Your task to perform on an android device: see sites visited before in the chrome app Image 0: 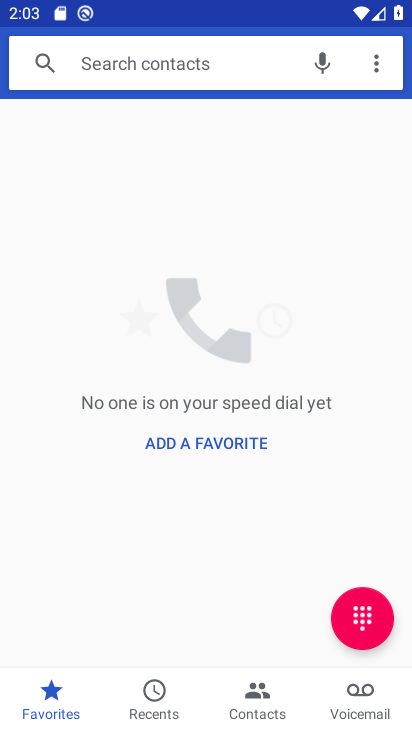
Step 0: press home button
Your task to perform on an android device: see sites visited before in the chrome app Image 1: 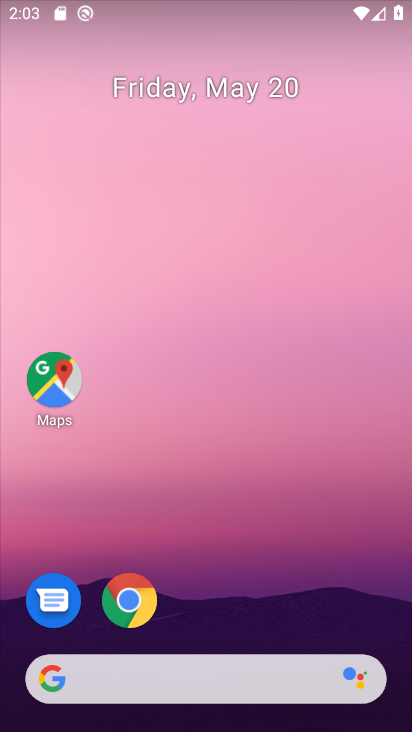
Step 1: drag from (297, 620) to (186, 83)
Your task to perform on an android device: see sites visited before in the chrome app Image 2: 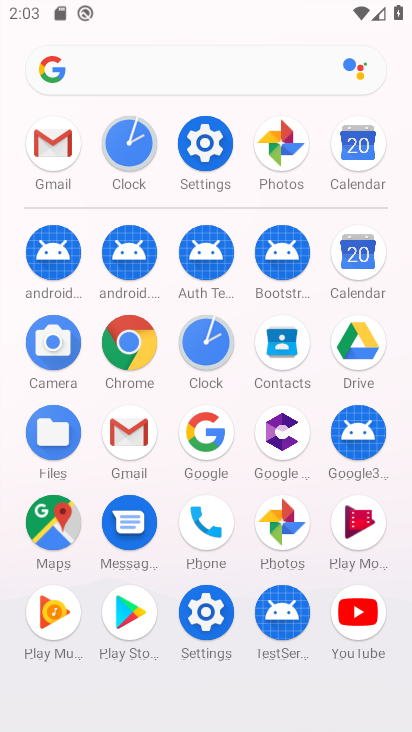
Step 2: click (148, 357)
Your task to perform on an android device: see sites visited before in the chrome app Image 3: 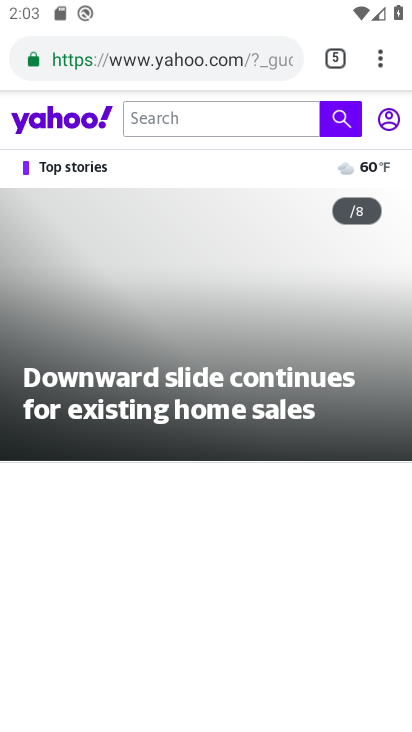
Step 3: click (376, 58)
Your task to perform on an android device: see sites visited before in the chrome app Image 4: 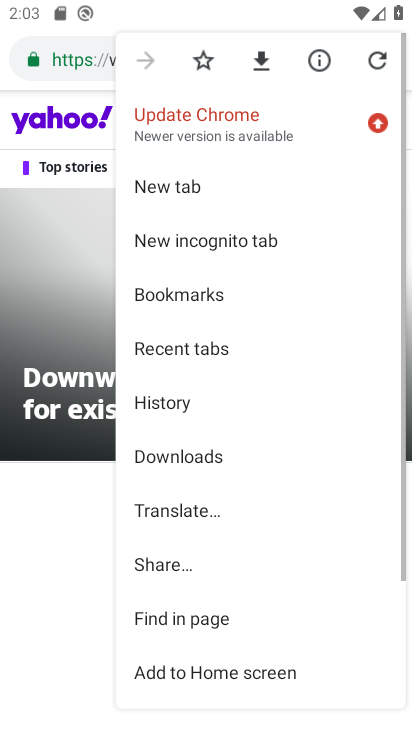
Step 4: click (218, 402)
Your task to perform on an android device: see sites visited before in the chrome app Image 5: 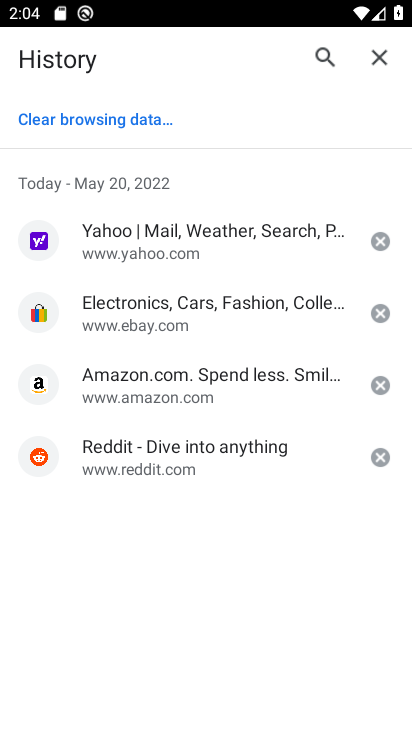
Step 5: task complete